Your task to perform on an android device: add a contact in the contacts app Image 0: 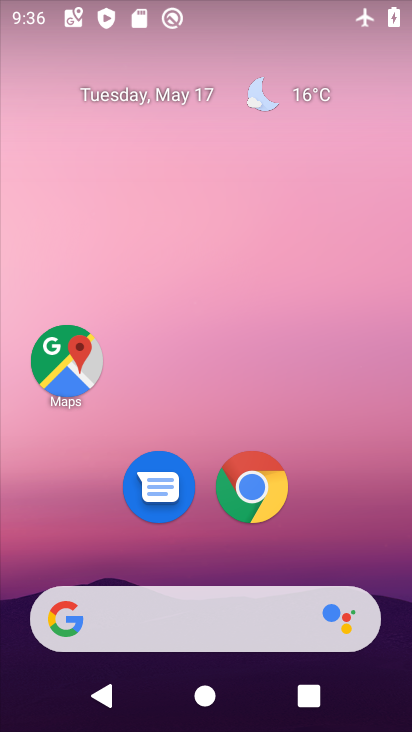
Step 0: drag from (213, 560) to (269, 24)
Your task to perform on an android device: add a contact in the contacts app Image 1: 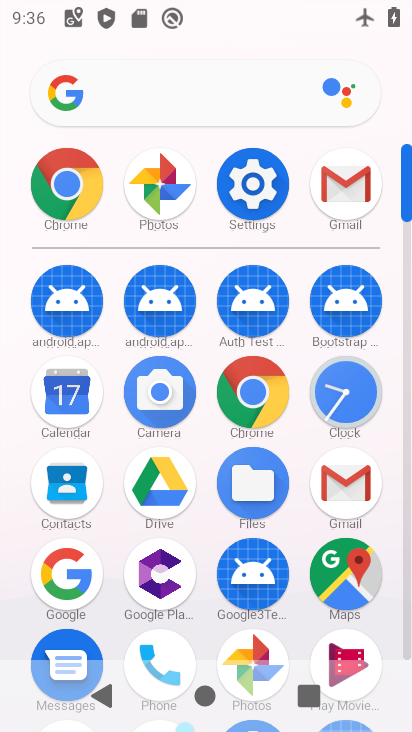
Step 1: click (55, 492)
Your task to perform on an android device: add a contact in the contacts app Image 2: 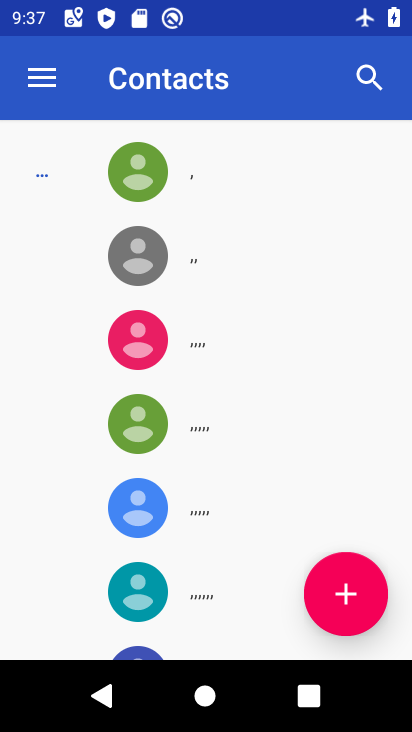
Step 2: click (361, 600)
Your task to perform on an android device: add a contact in the contacts app Image 3: 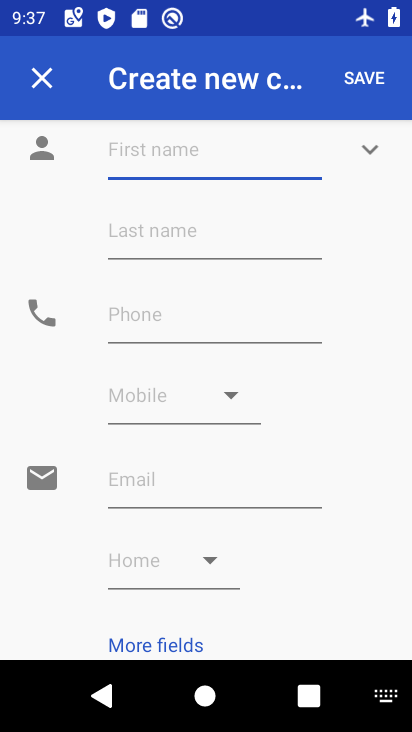
Step 3: type "bleak"
Your task to perform on an android device: add a contact in the contacts app Image 4: 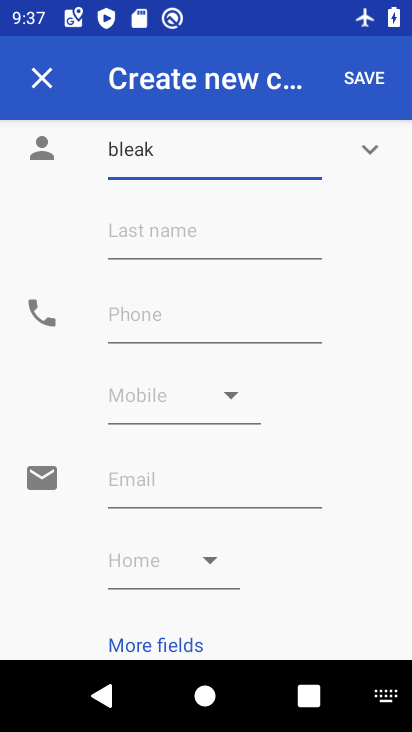
Step 4: click (359, 84)
Your task to perform on an android device: add a contact in the contacts app Image 5: 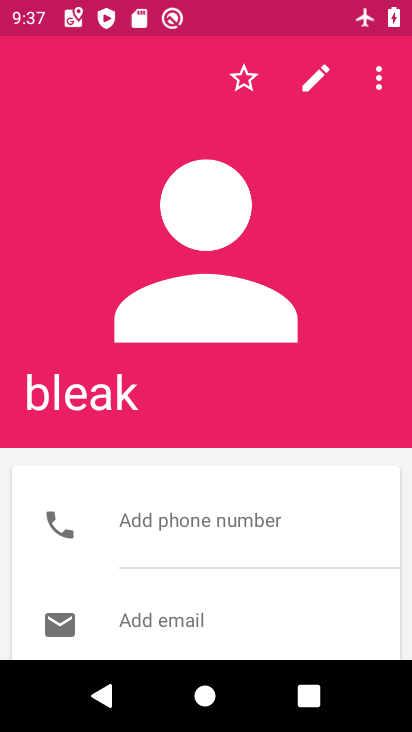
Step 5: task complete